Your task to perform on an android device: find snoozed emails in the gmail app Image 0: 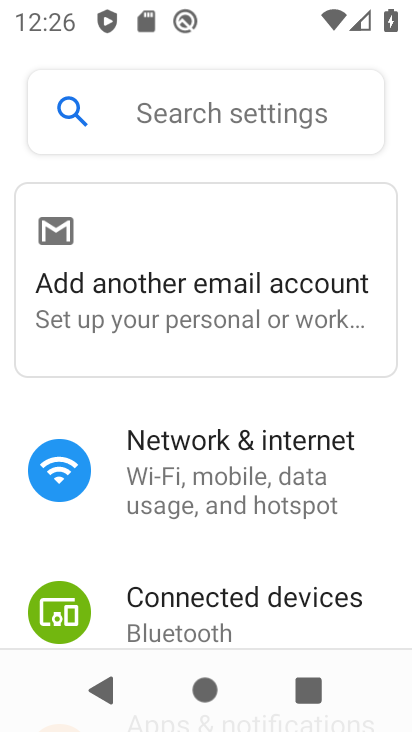
Step 0: press home button
Your task to perform on an android device: find snoozed emails in the gmail app Image 1: 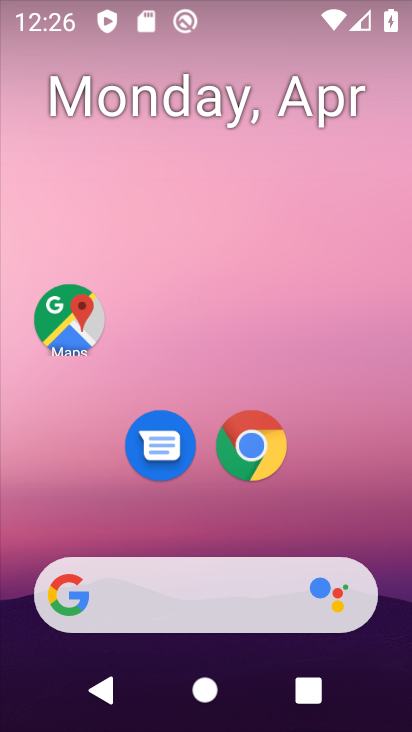
Step 1: drag from (363, 513) to (384, 122)
Your task to perform on an android device: find snoozed emails in the gmail app Image 2: 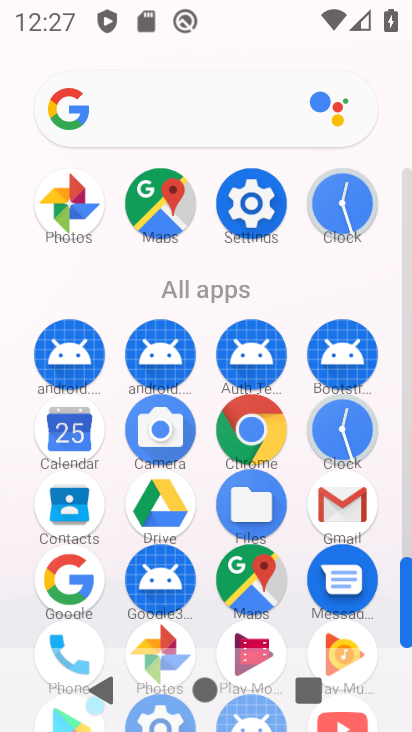
Step 2: click (354, 504)
Your task to perform on an android device: find snoozed emails in the gmail app Image 3: 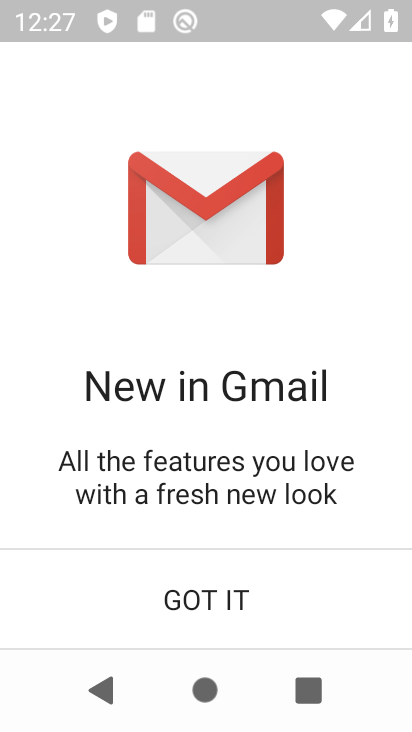
Step 3: click (257, 614)
Your task to perform on an android device: find snoozed emails in the gmail app Image 4: 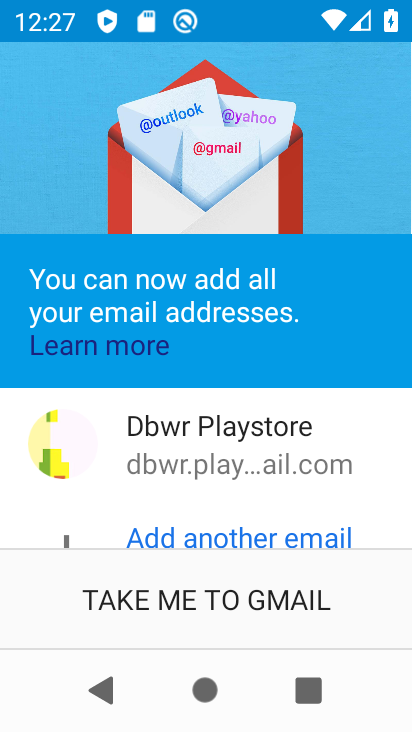
Step 4: click (257, 614)
Your task to perform on an android device: find snoozed emails in the gmail app Image 5: 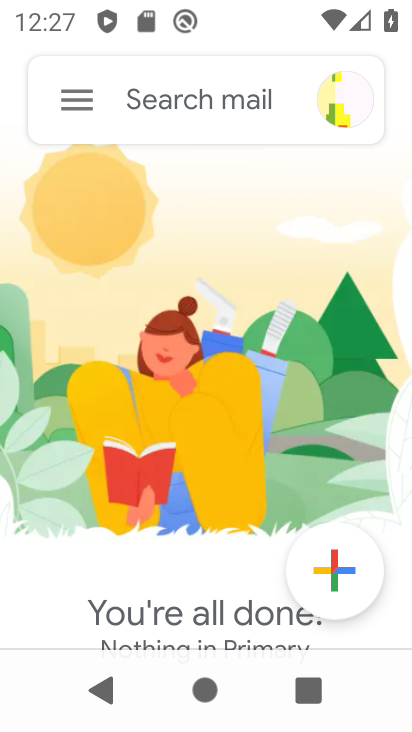
Step 5: click (79, 99)
Your task to perform on an android device: find snoozed emails in the gmail app Image 6: 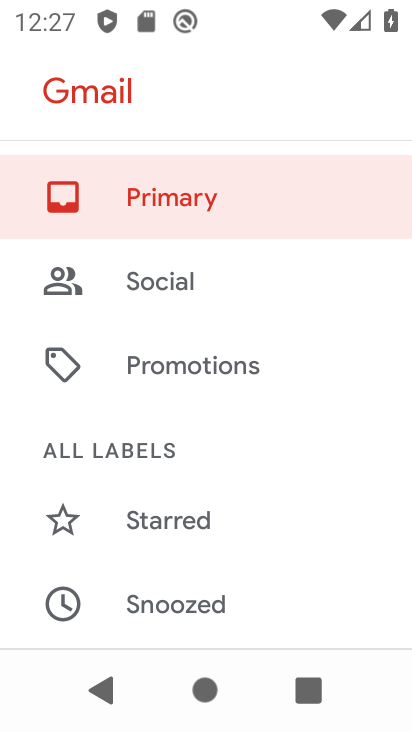
Step 6: drag from (321, 550) to (327, 288)
Your task to perform on an android device: find snoozed emails in the gmail app Image 7: 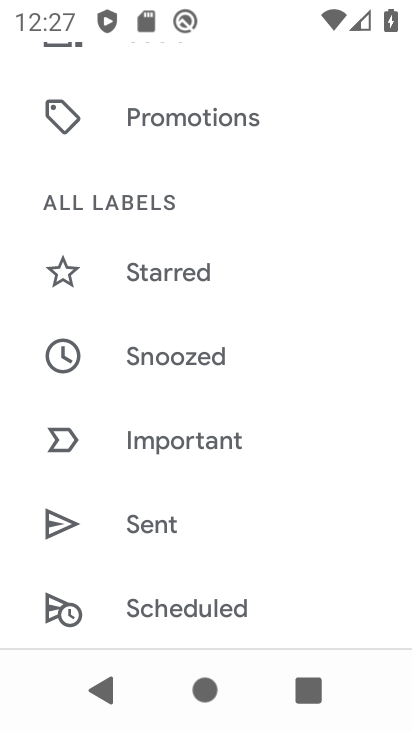
Step 7: drag from (330, 523) to (337, 400)
Your task to perform on an android device: find snoozed emails in the gmail app Image 8: 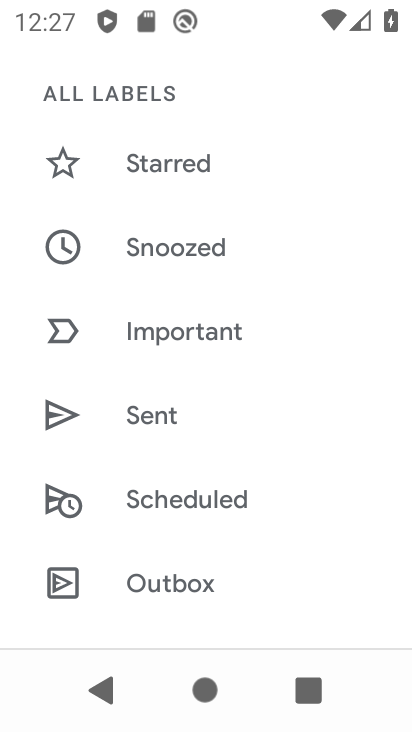
Step 8: click (198, 249)
Your task to perform on an android device: find snoozed emails in the gmail app Image 9: 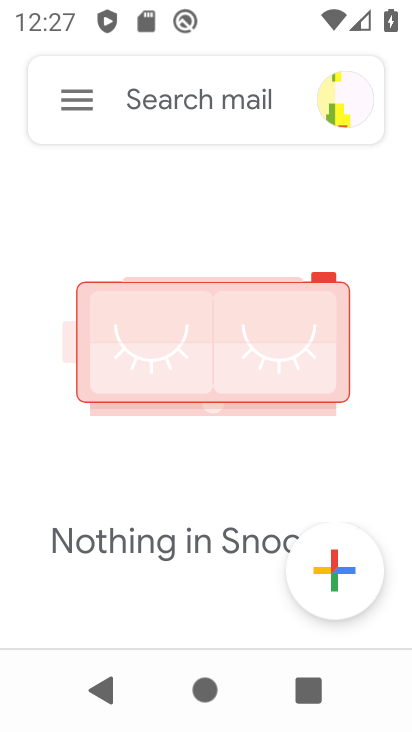
Step 9: task complete